Your task to perform on an android device: Search for seafood restaurants on Google Maps Image 0: 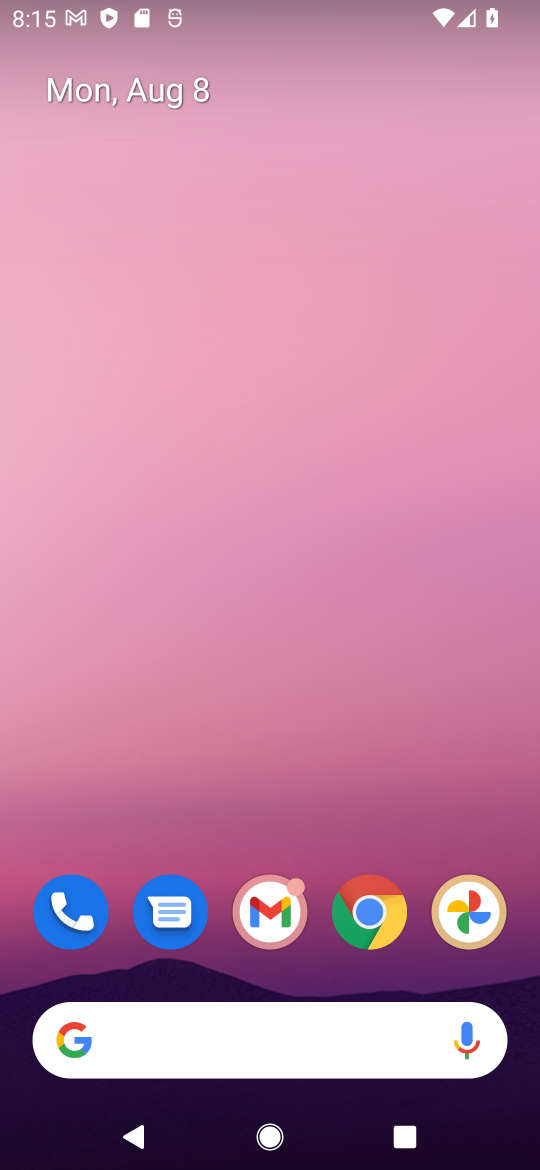
Step 0: drag from (501, 1010) to (369, 35)
Your task to perform on an android device: Search for seafood restaurants on Google Maps Image 1: 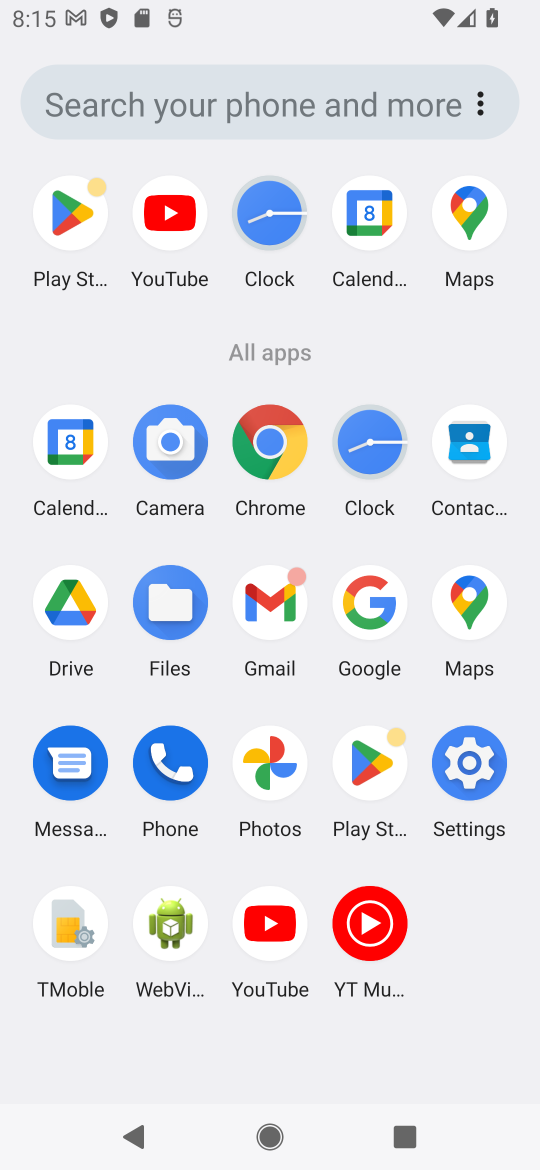
Step 1: click (449, 612)
Your task to perform on an android device: Search for seafood restaurants on Google Maps Image 2: 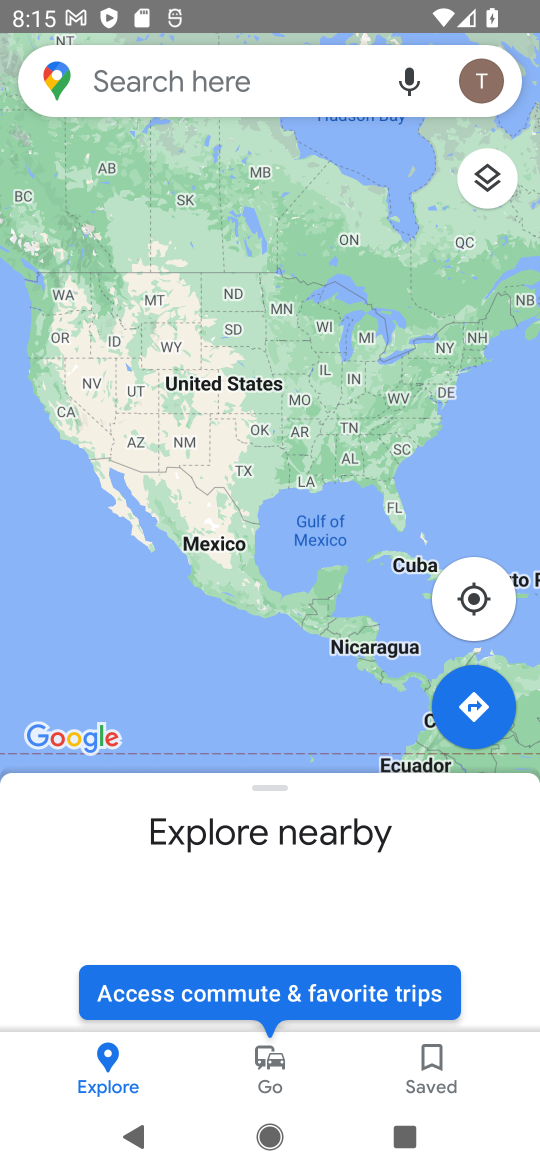
Step 2: click (173, 70)
Your task to perform on an android device: Search for seafood restaurants on Google Maps Image 3: 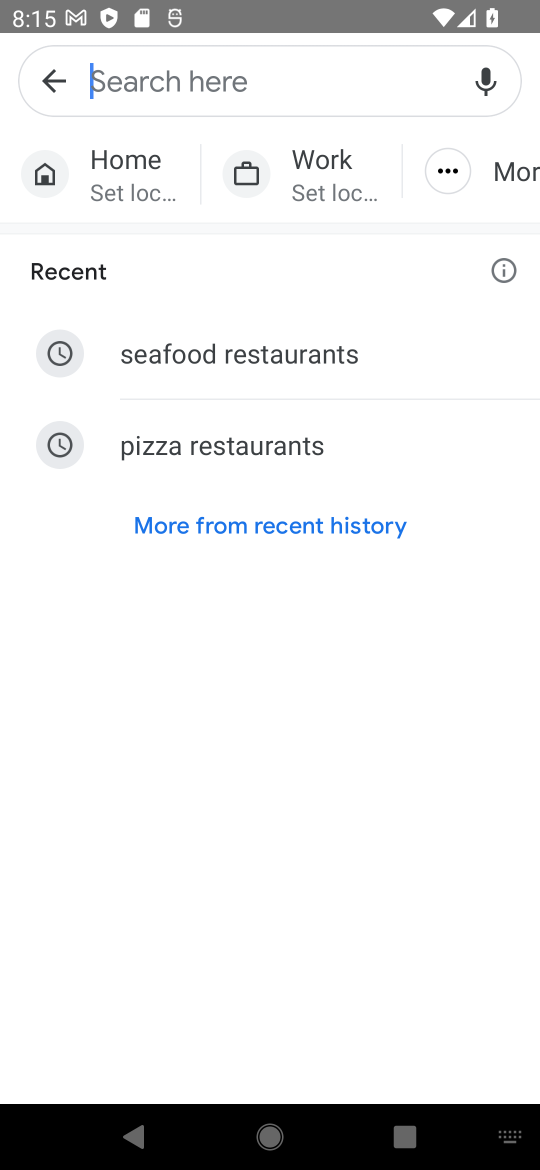
Step 3: click (231, 371)
Your task to perform on an android device: Search for seafood restaurants on Google Maps Image 4: 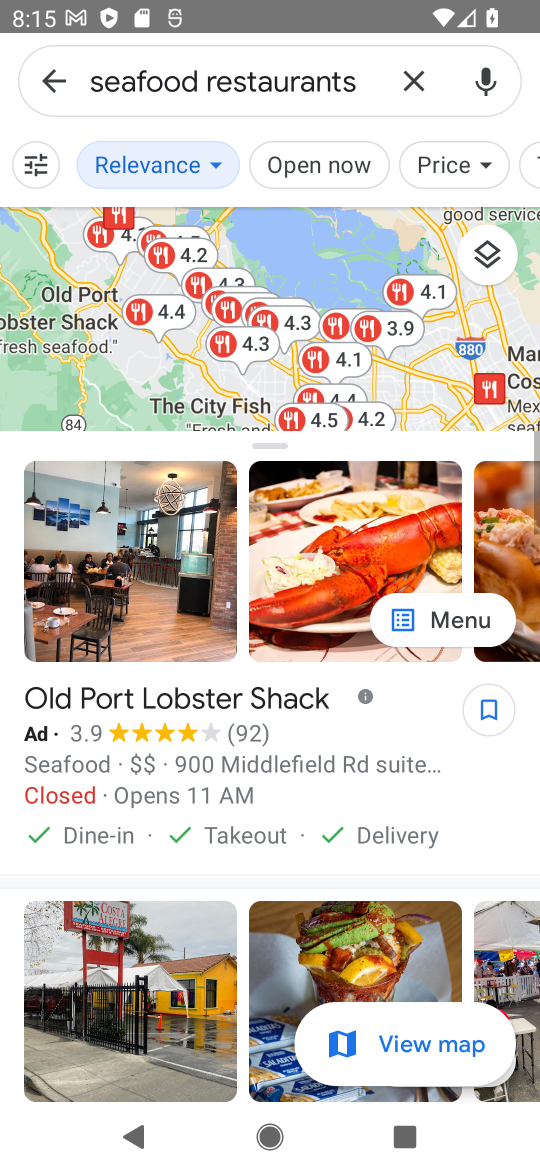
Step 4: task complete